Your task to perform on an android device: turn pop-ups off in chrome Image 0: 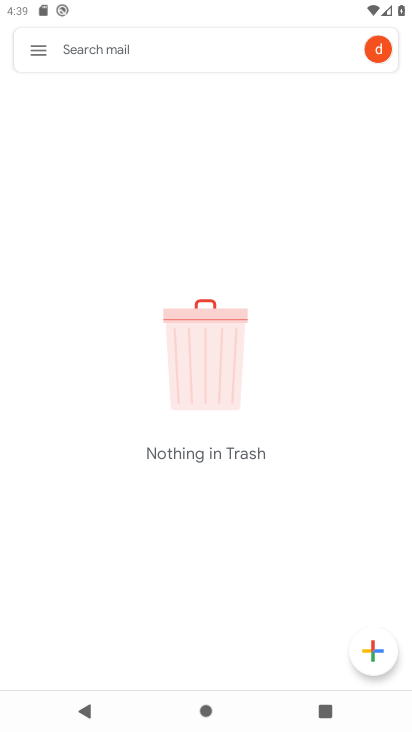
Step 0: press back button
Your task to perform on an android device: turn pop-ups off in chrome Image 1: 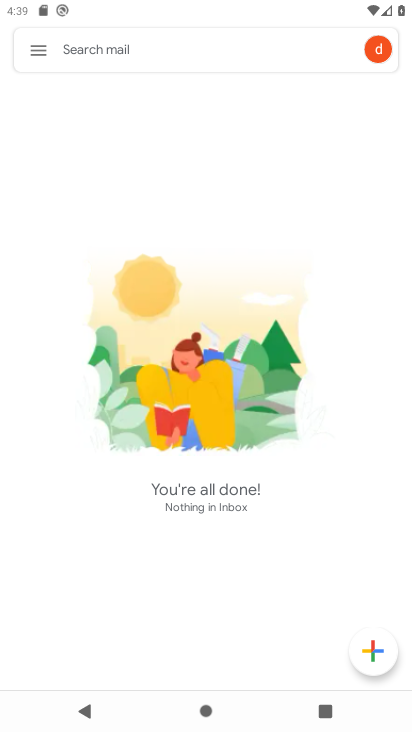
Step 1: press back button
Your task to perform on an android device: turn pop-ups off in chrome Image 2: 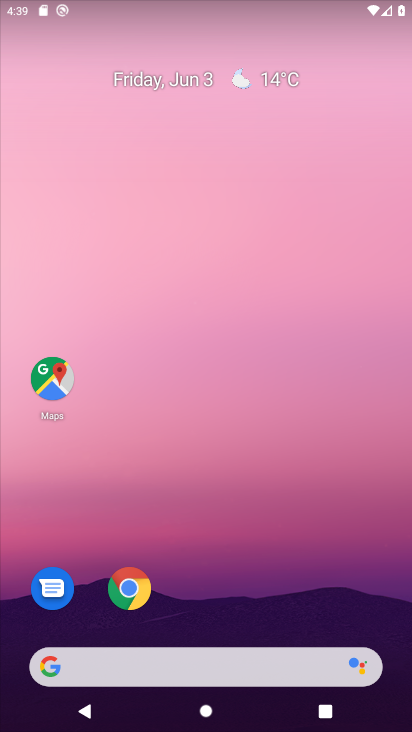
Step 2: drag from (232, 325) to (193, 27)
Your task to perform on an android device: turn pop-ups off in chrome Image 3: 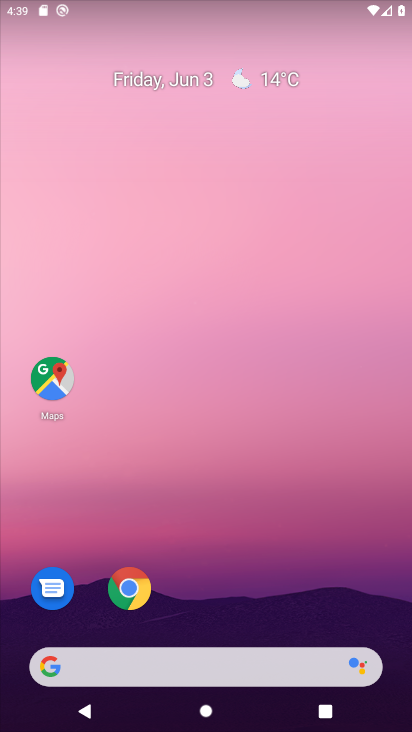
Step 3: drag from (223, 506) to (212, 21)
Your task to perform on an android device: turn pop-ups off in chrome Image 4: 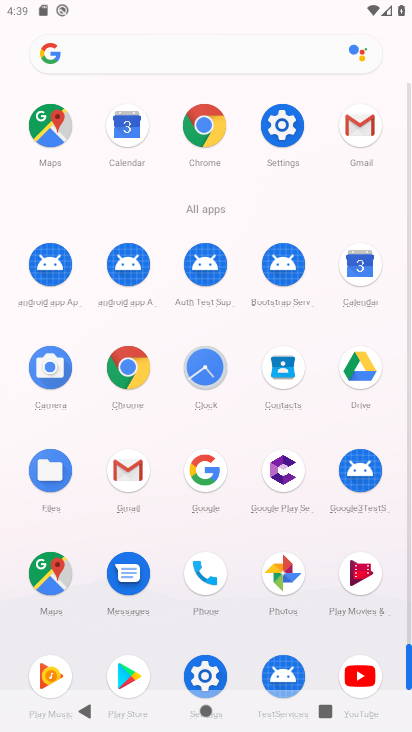
Step 4: click (128, 362)
Your task to perform on an android device: turn pop-ups off in chrome Image 5: 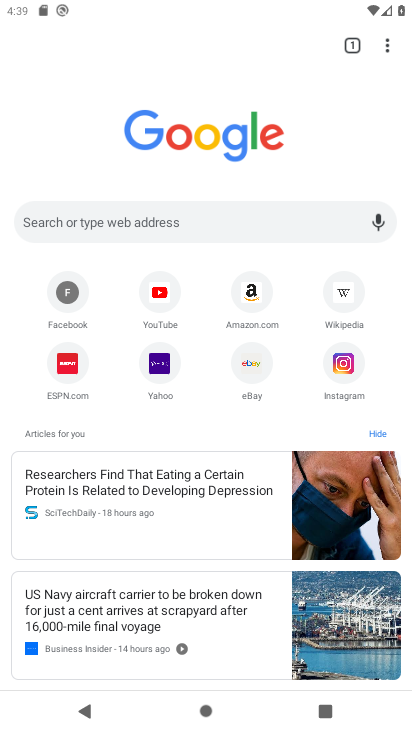
Step 5: drag from (388, 40) to (259, 373)
Your task to perform on an android device: turn pop-ups off in chrome Image 6: 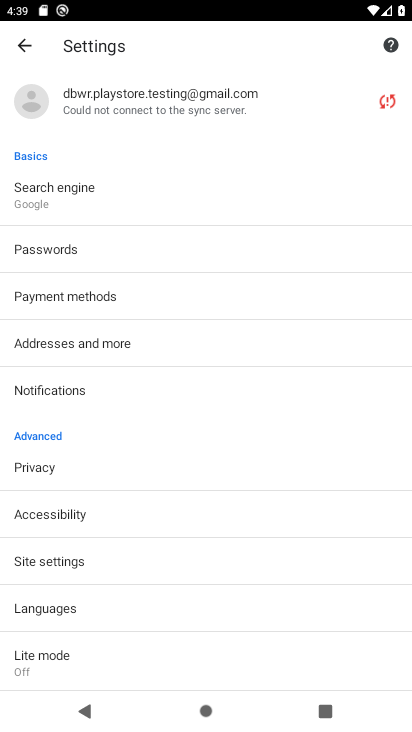
Step 6: click (81, 555)
Your task to perform on an android device: turn pop-ups off in chrome Image 7: 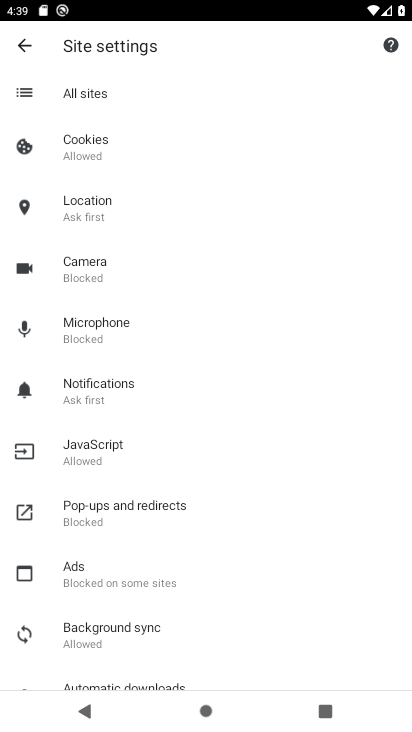
Step 7: click (128, 514)
Your task to perform on an android device: turn pop-ups off in chrome Image 8: 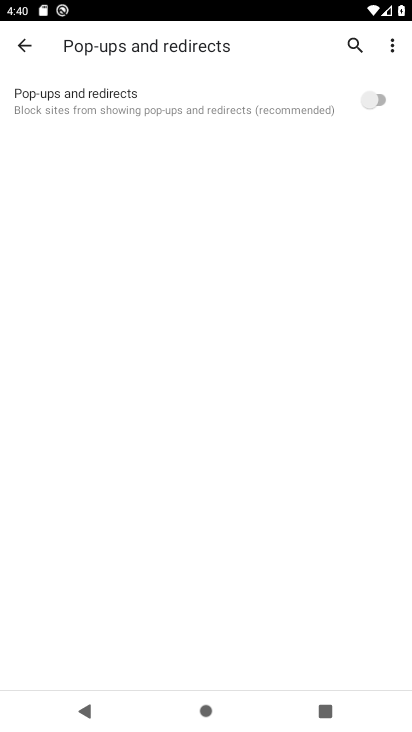
Step 8: task complete